Your task to perform on an android device: Open calendar and show me the first week of next month Image 0: 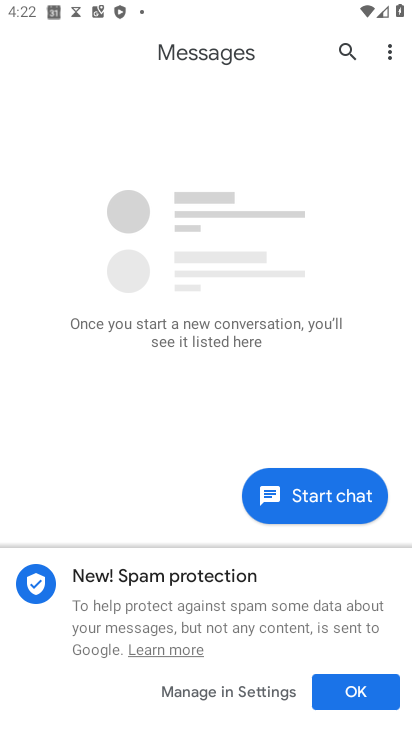
Step 0: press back button
Your task to perform on an android device: Open calendar and show me the first week of next month Image 1: 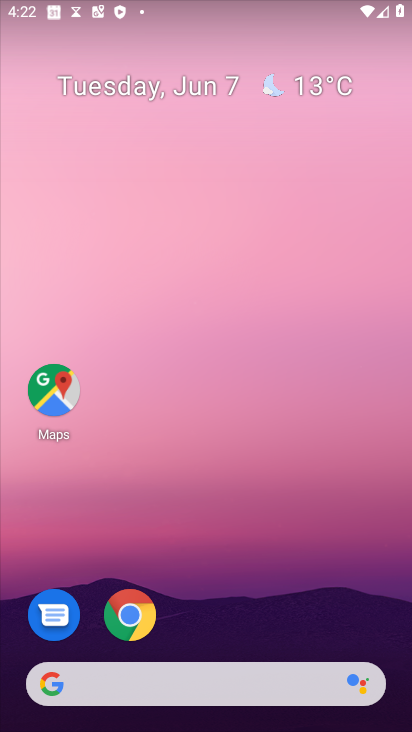
Step 1: drag from (225, 607) to (165, 202)
Your task to perform on an android device: Open calendar and show me the first week of next month Image 2: 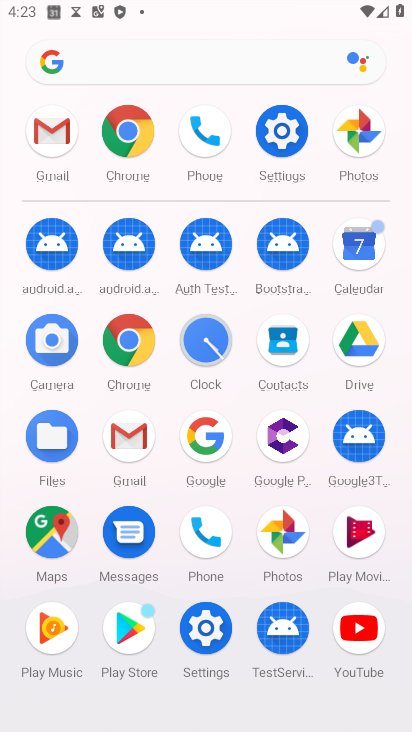
Step 2: click (358, 235)
Your task to perform on an android device: Open calendar and show me the first week of next month Image 3: 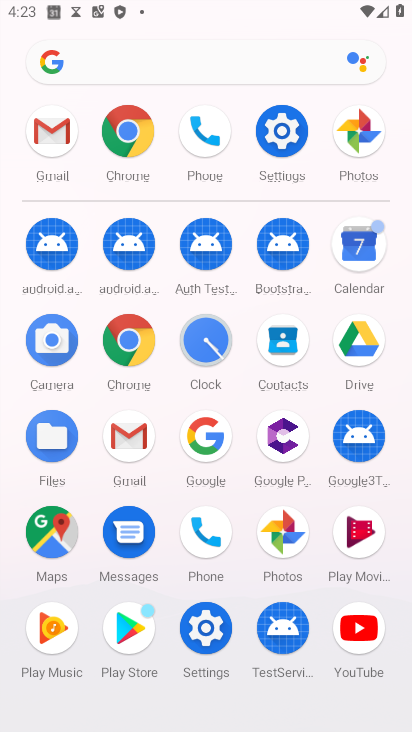
Step 3: click (358, 235)
Your task to perform on an android device: Open calendar and show me the first week of next month Image 4: 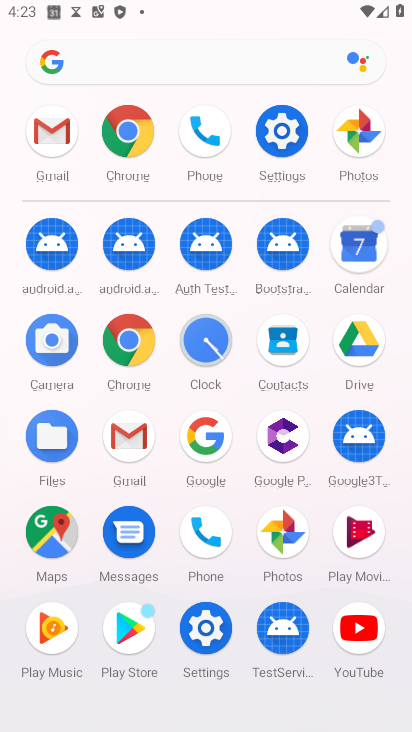
Step 4: click (358, 235)
Your task to perform on an android device: Open calendar and show me the first week of next month Image 5: 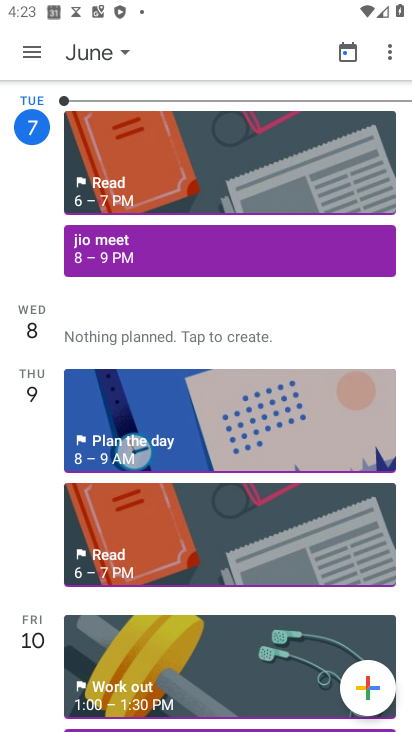
Step 5: click (137, 46)
Your task to perform on an android device: Open calendar and show me the first week of next month Image 6: 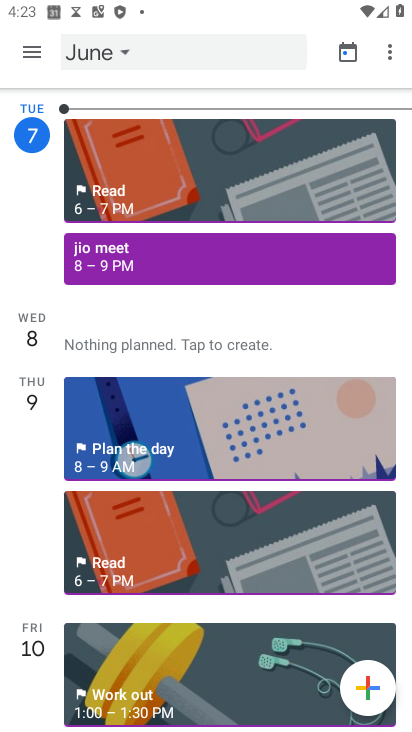
Step 6: click (125, 52)
Your task to perform on an android device: Open calendar and show me the first week of next month Image 7: 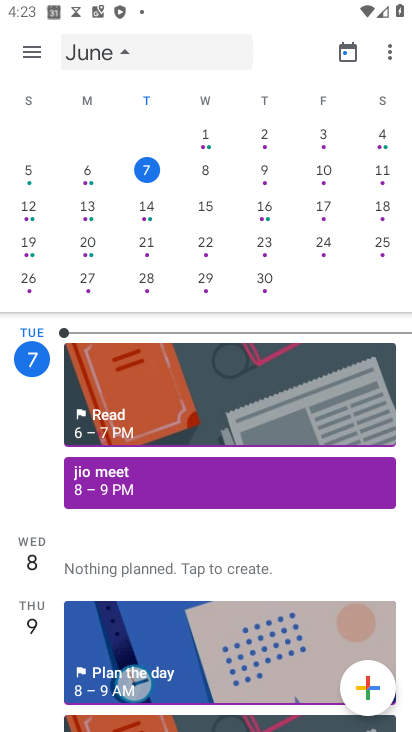
Step 7: click (127, 54)
Your task to perform on an android device: Open calendar and show me the first week of next month Image 8: 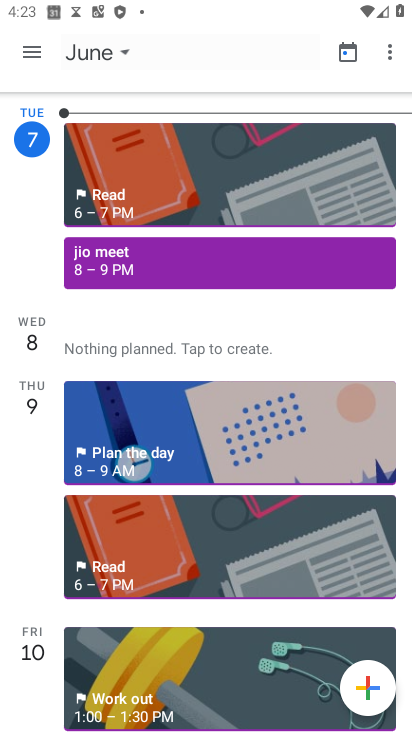
Step 8: click (127, 54)
Your task to perform on an android device: Open calendar and show me the first week of next month Image 9: 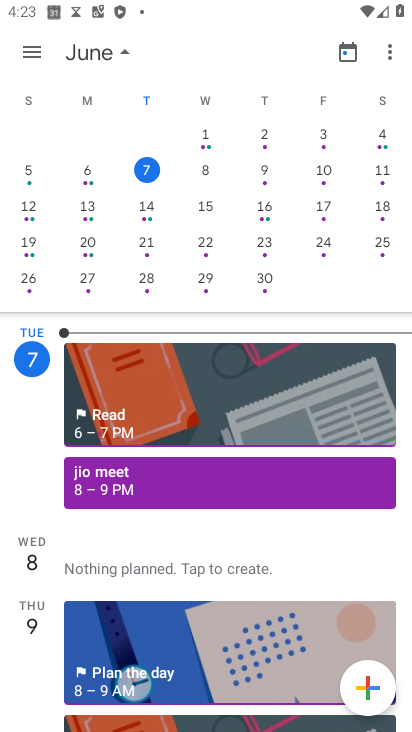
Step 9: drag from (260, 211) to (9, 280)
Your task to perform on an android device: Open calendar and show me the first week of next month Image 10: 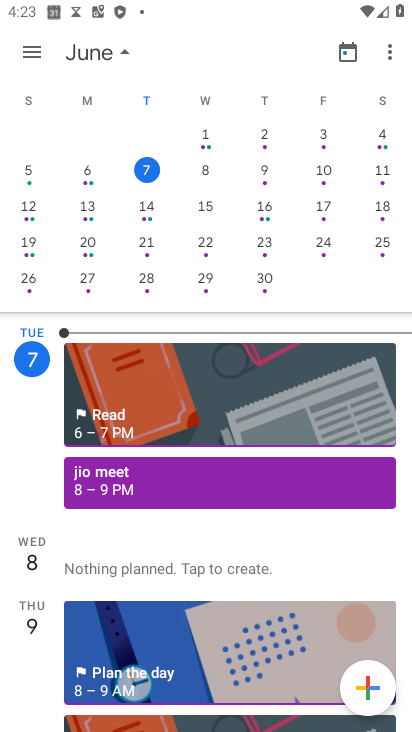
Step 10: drag from (236, 206) to (19, 216)
Your task to perform on an android device: Open calendar and show me the first week of next month Image 11: 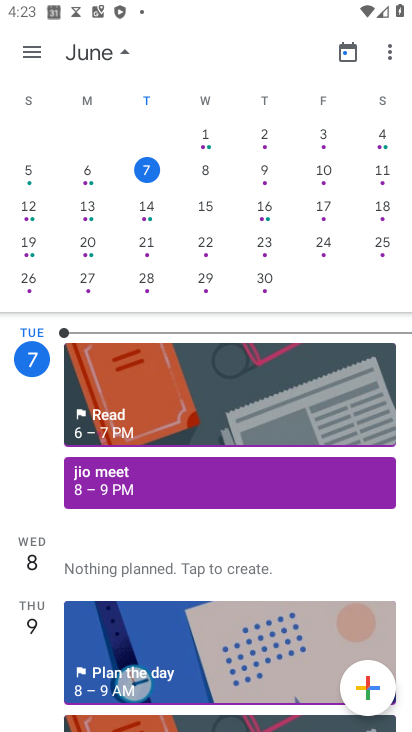
Step 11: drag from (206, 195) to (55, 255)
Your task to perform on an android device: Open calendar and show me the first week of next month Image 12: 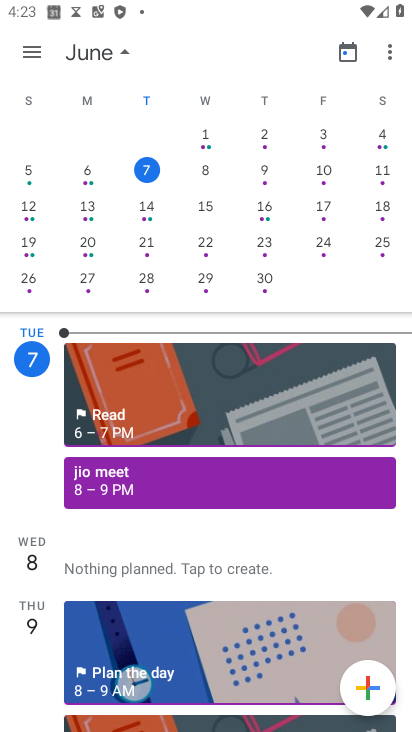
Step 12: drag from (234, 215) to (64, 257)
Your task to perform on an android device: Open calendar and show me the first week of next month Image 13: 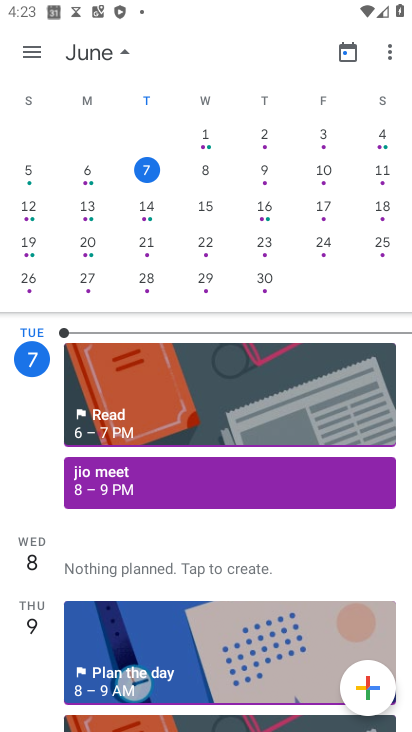
Step 13: drag from (260, 215) to (4, 270)
Your task to perform on an android device: Open calendar and show me the first week of next month Image 14: 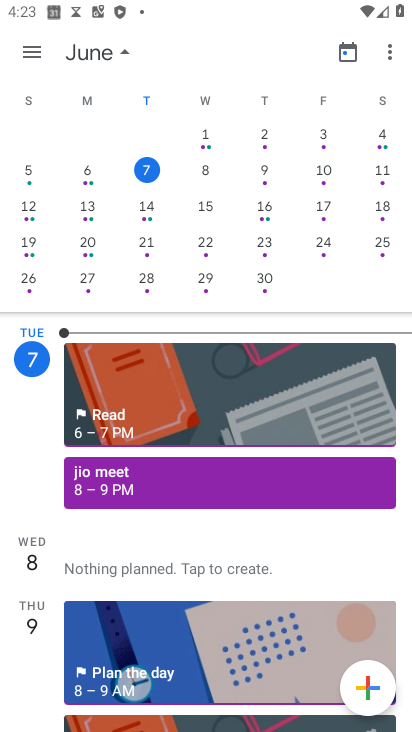
Step 14: drag from (231, 211) to (67, 218)
Your task to perform on an android device: Open calendar and show me the first week of next month Image 15: 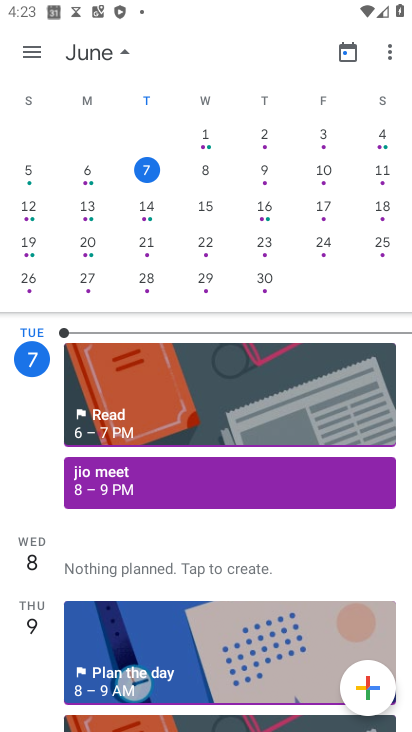
Step 15: click (27, 196)
Your task to perform on an android device: Open calendar and show me the first week of next month Image 16: 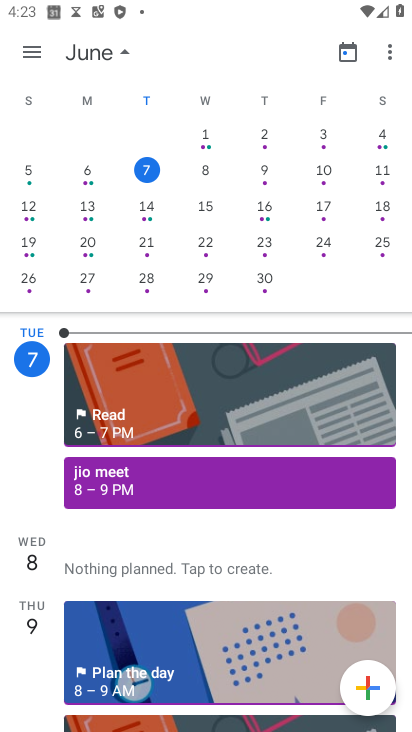
Step 16: click (268, 135)
Your task to perform on an android device: Open calendar and show me the first week of next month Image 17: 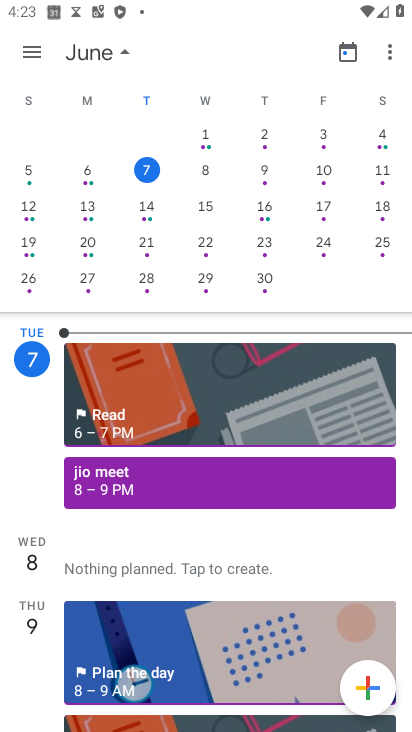
Step 17: task complete